Your task to perform on an android device: delete the emails in spam in the gmail app Image 0: 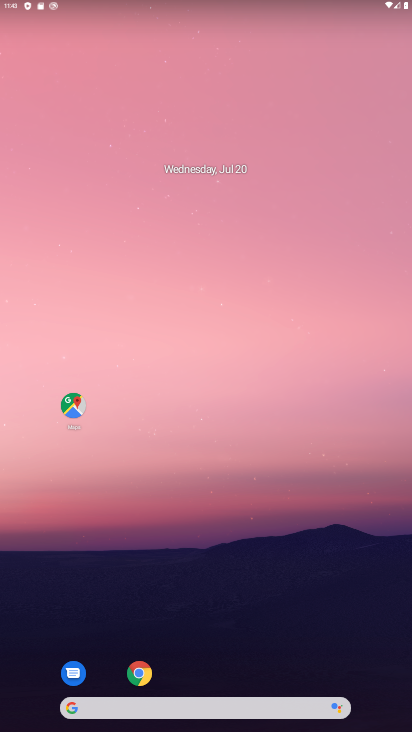
Step 0: drag from (220, 660) to (207, 329)
Your task to perform on an android device: delete the emails in spam in the gmail app Image 1: 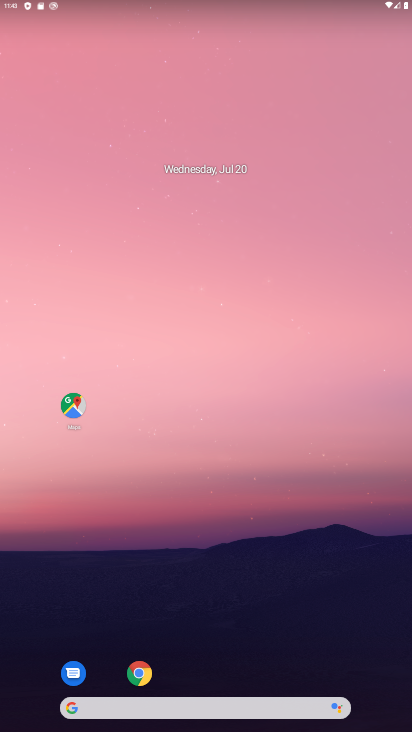
Step 1: drag from (248, 697) to (232, 189)
Your task to perform on an android device: delete the emails in spam in the gmail app Image 2: 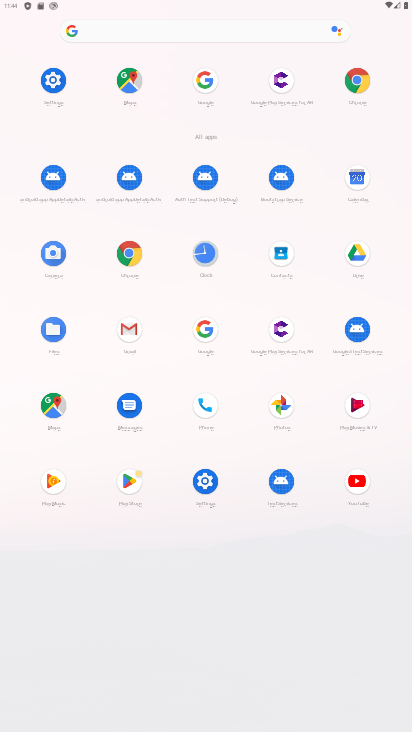
Step 2: click (133, 327)
Your task to perform on an android device: delete the emails in spam in the gmail app Image 3: 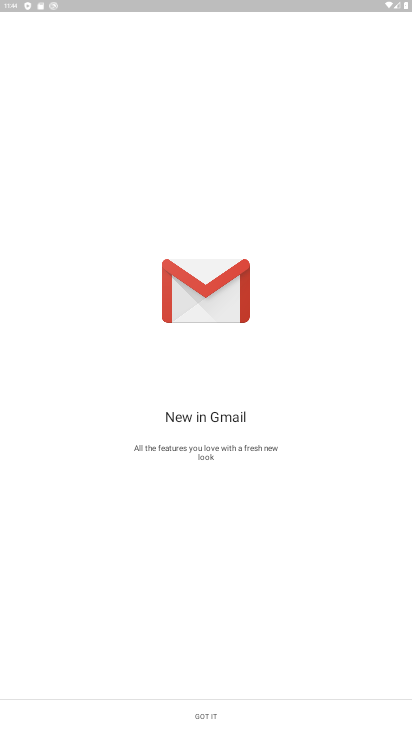
Step 3: click (220, 719)
Your task to perform on an android device: delete the emails in spam in the gmail app Image 4: 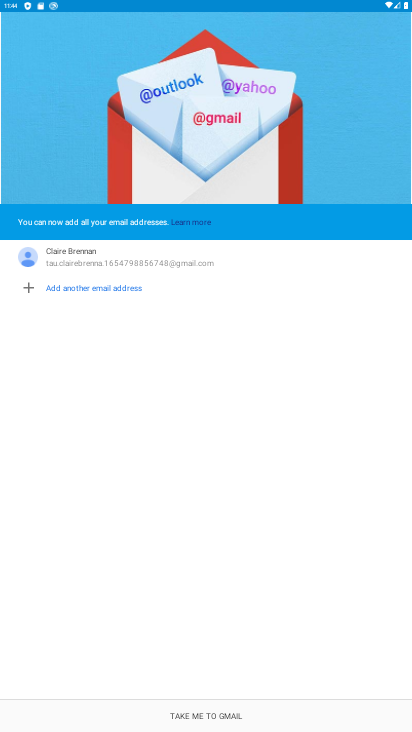
Step 4: click (220, 719)
Your task to perform on an android device: delete the emails in spam in the gmail app Image 5: 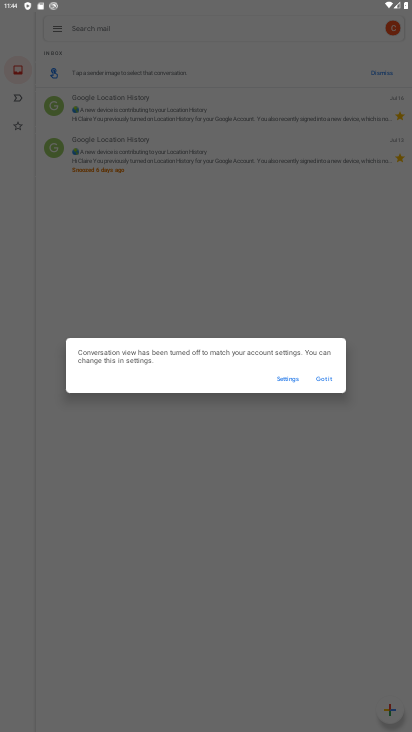
Step 5: click (325, 381)
Your task to perform on an android device: delete the emails in spam in the gmail app Image 6: 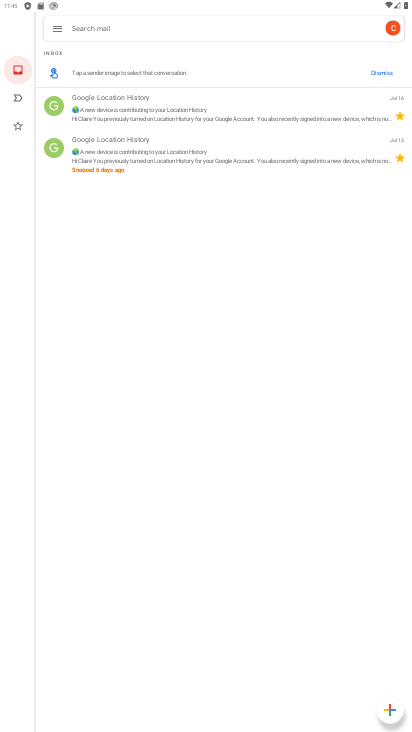
Step 6: click (156, 109)
Your task to perform on an android device: delete the emails in spam in the gmail app Image 7: 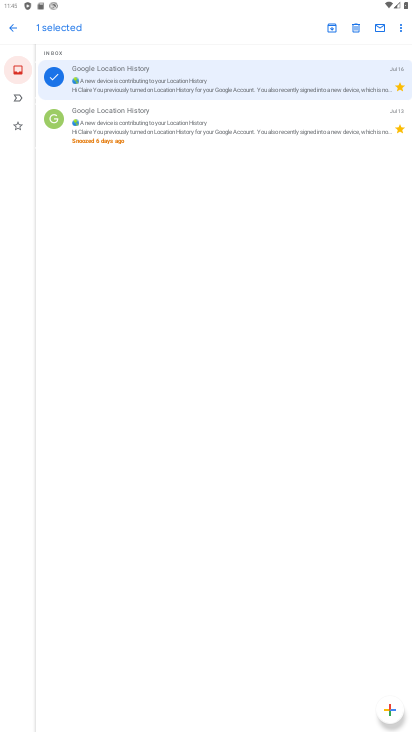
Step 7: click (356, 25)
Your task to perform on an android device: delete the emails in spam in the gmail app Image 8: 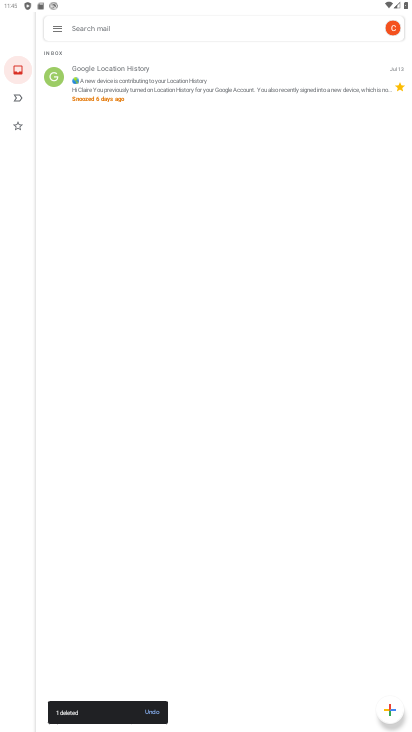
Step 8: task complete